Your task to perform on an android device: Open ESPN.com Image 0: 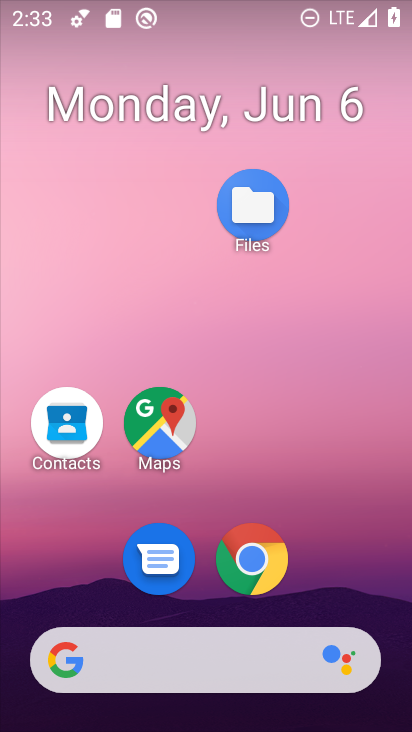
Step 0: drag from (260, 651) to (365, 253)
Your task to perform on an android device: Open ESPN.com Image 1: 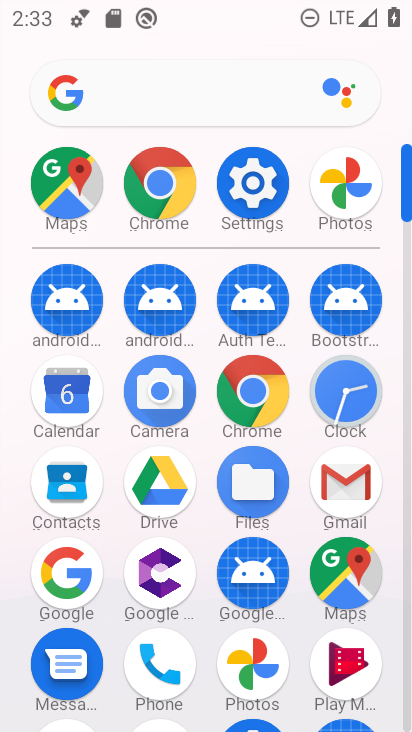
Step 1: click (159, 201)
Your task to perform on an android device: Open ESPN.com Image 2: 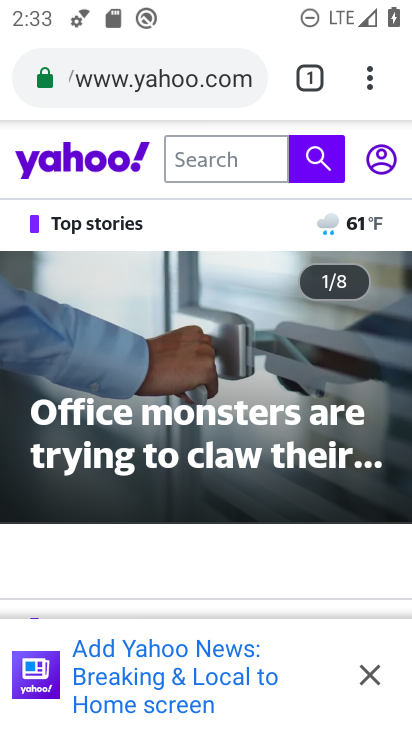
Step 2: click (213, 97)
Your task to perform on an android device: Open ESPN.com Image 3: 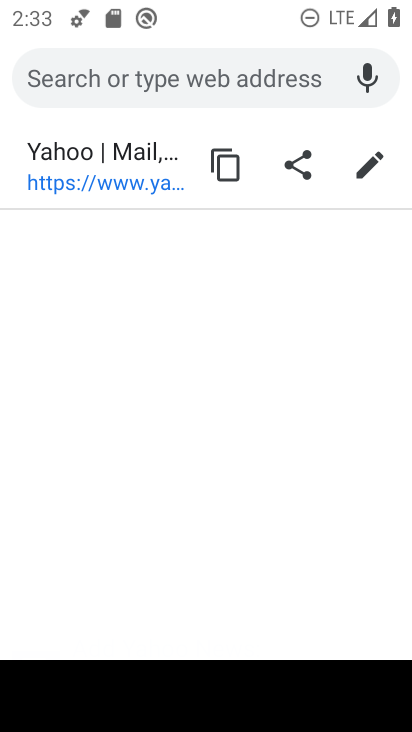
Step 3: type "espn"
Your task to perform on an android device: Open ESPN.com Image 4: 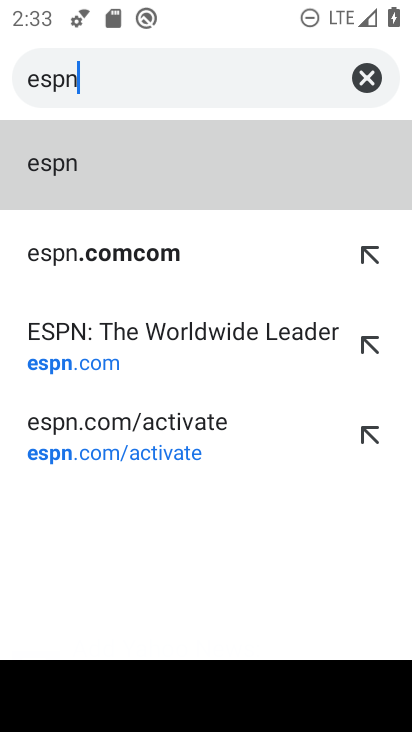
Step 4: click (168, 360)
Your task to perform on an android device: Open ESPN.com Image 5: 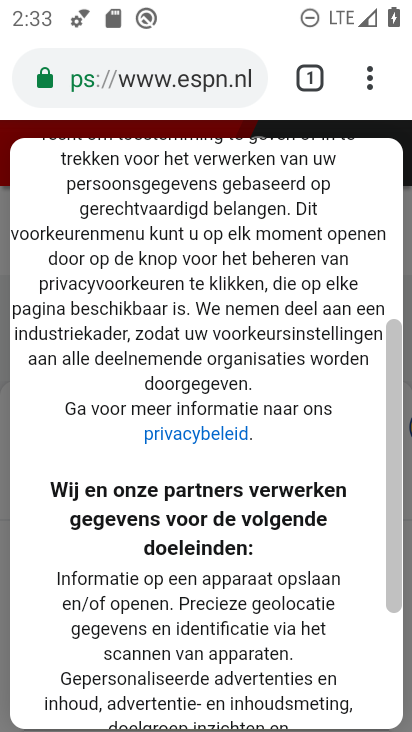
Step 5: task complete